Your task to perform on an android device: Open wifi settings Image 0: 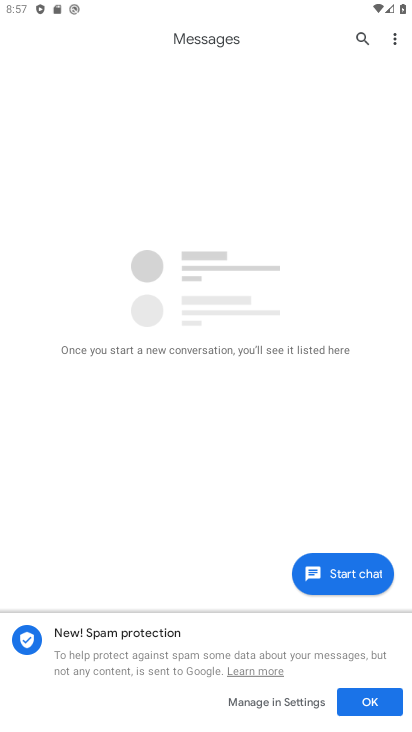
Step 0: press back button
Your task to perform on an android device: Open wifi settings Image 1: 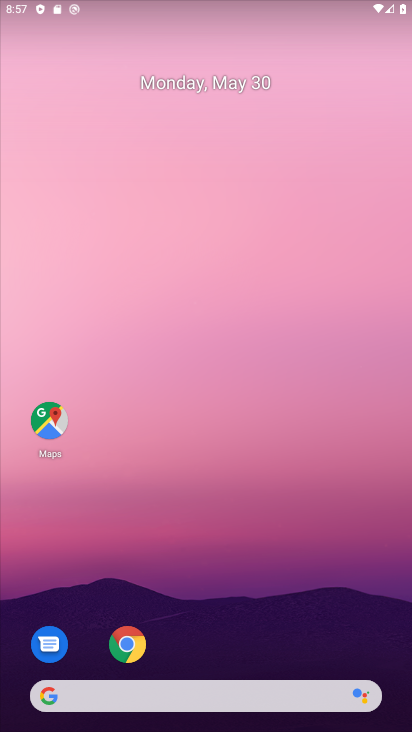
Step 1: drag from (265, 532) to (288, 3)
Your task to perform on an android device: Open wifi settings Image 2: 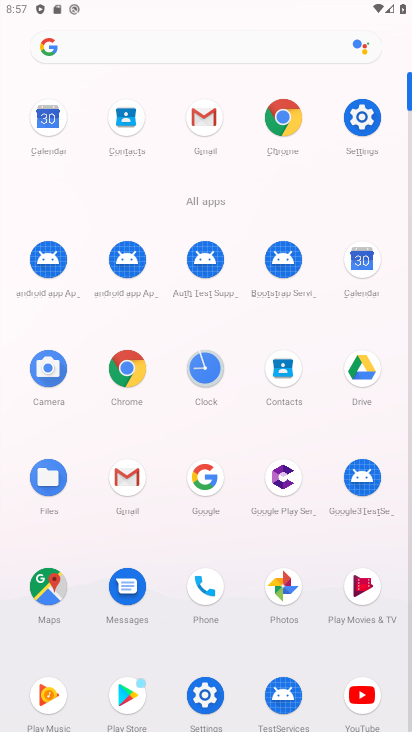
Step 2: drag from (79, 31) to (108, 459)
Your task to perform on an android device: Open wifi settings Image 3: 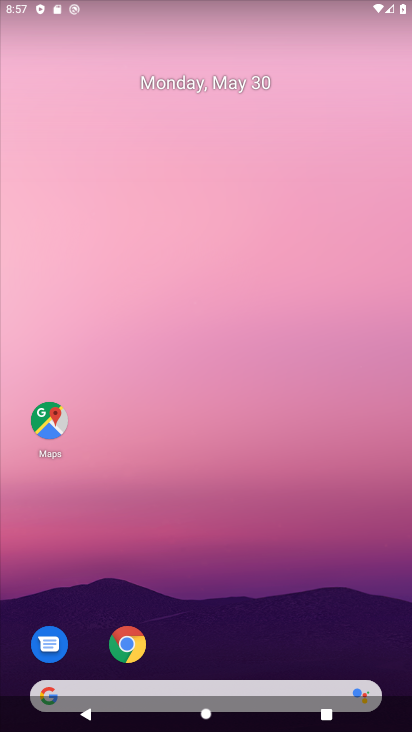
Step 3: drag from (45, 2) to (92, 458)
Your task to perform on an android device: Open wifi settings Image 4: 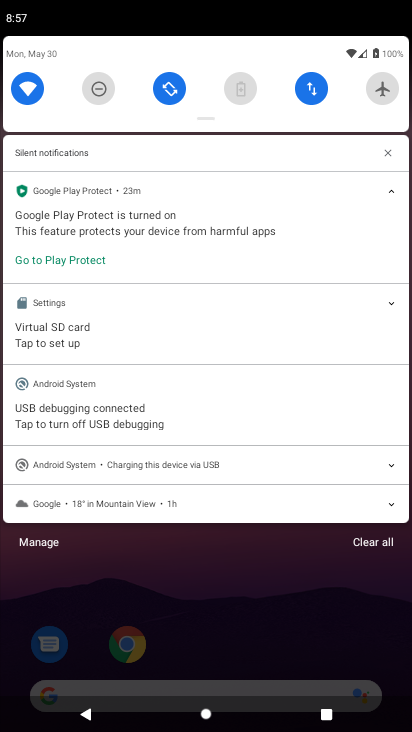
Step 4: click (34, 90)
Your task to perform on an android device: Open wifi settings Image 5: 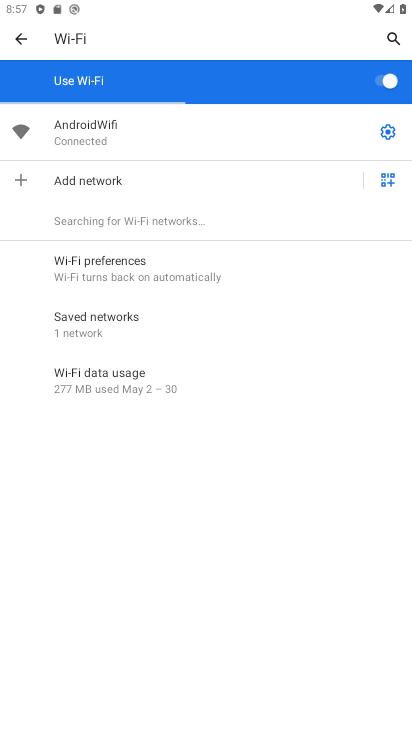
Step 5: task complete